Your task to perform on an android device: remove spam from my inbox in the gmail app Image 0: 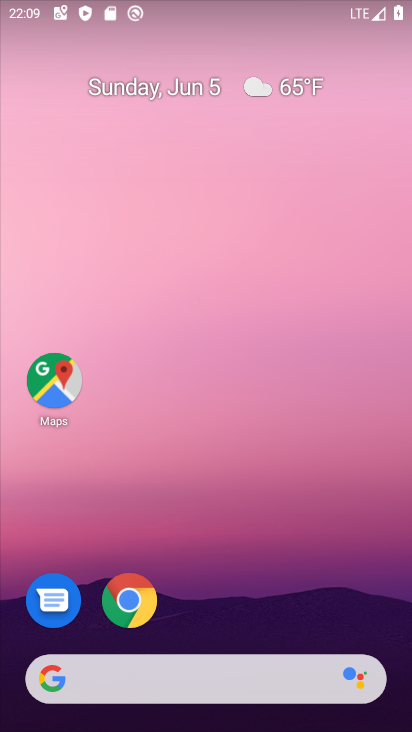
Step 0: drag from (260, 381) to (206, 131)
Your task to perform on an android device: remove spam from my inbox in the gmail app Image 1: 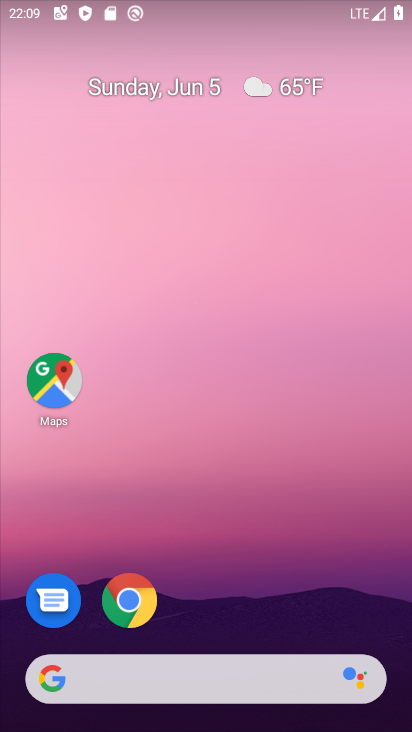
Step 1: drag from (257, 494) to (243, 79)
Your task to perform on an android device: remove spam from my inbox in the gmail app Image 2: 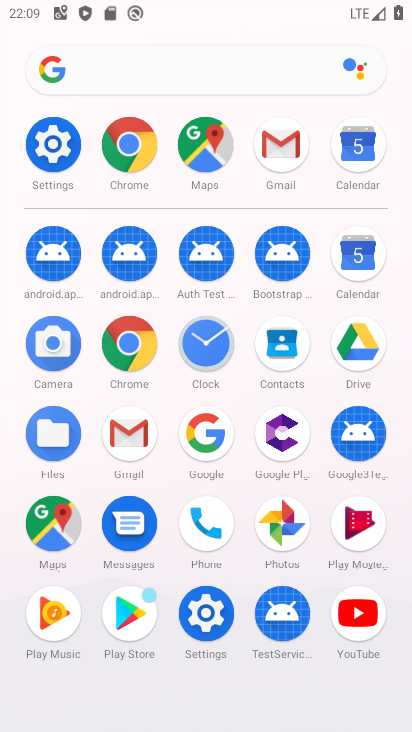
Step 2: click (285, 138)
Your task to perform on an android device: remove spam from my inbox in the gmail app Image 3: 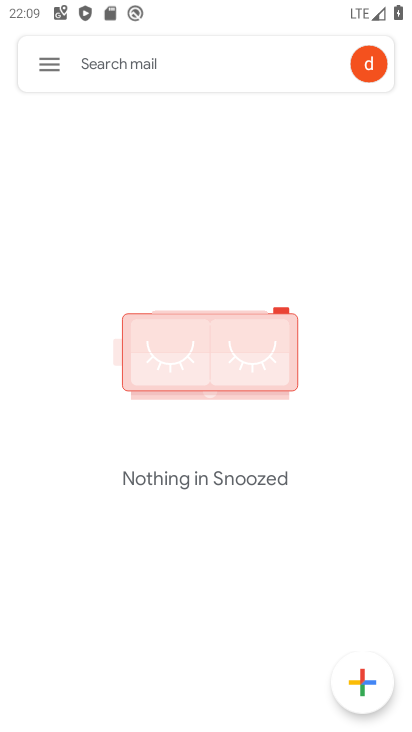
Step 3: click (56, 66)
Your task to perform on an android device: remove spam from my inbox in the gmail app Image 4: 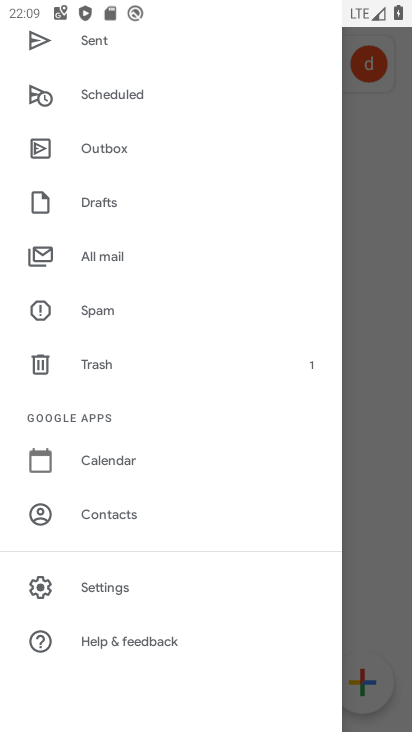
Step 4: drag from (143, 262) to (134, 528)
Your task to perform on an android device: remove spam from my inbox in the gmail app Image 5: 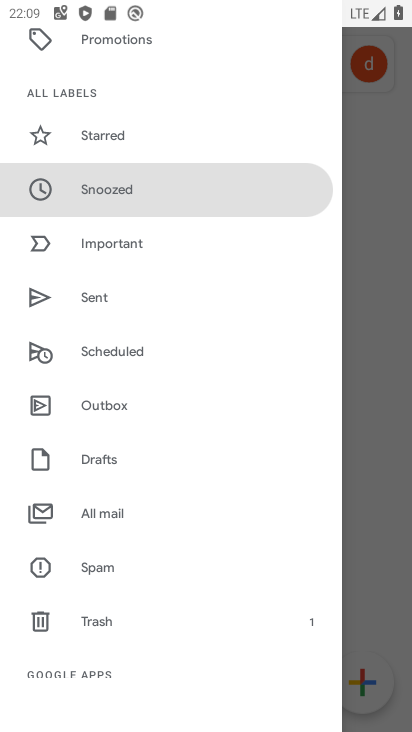
Step 5: drag from (115, 114) to (138, 551)
Your task to perform on an android device: remove spam from my inbox in the gmail app Image 6: 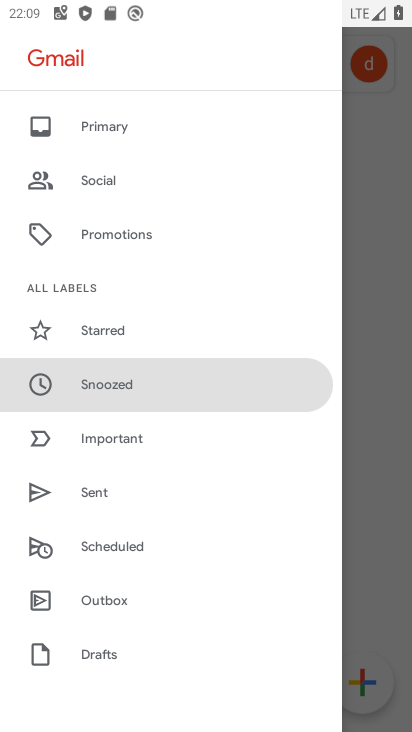
Step 6: click (115, 135)
Your task to perform on an android device: remove spam from my inbox in the gmail app Image 7: 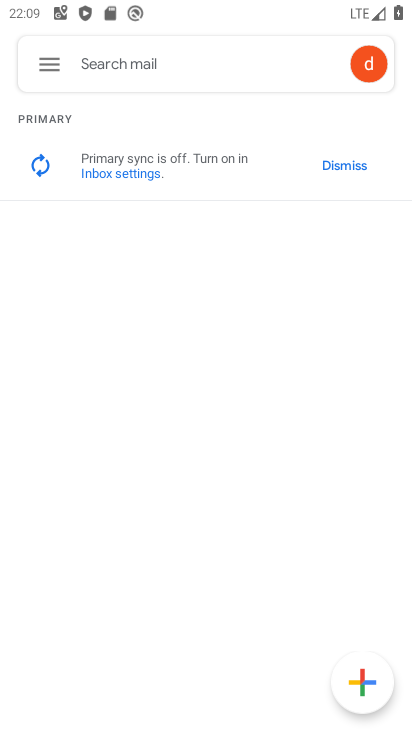
Step 7: task complete